Your task to perform on an android device: Go to privacy settings Image 0: 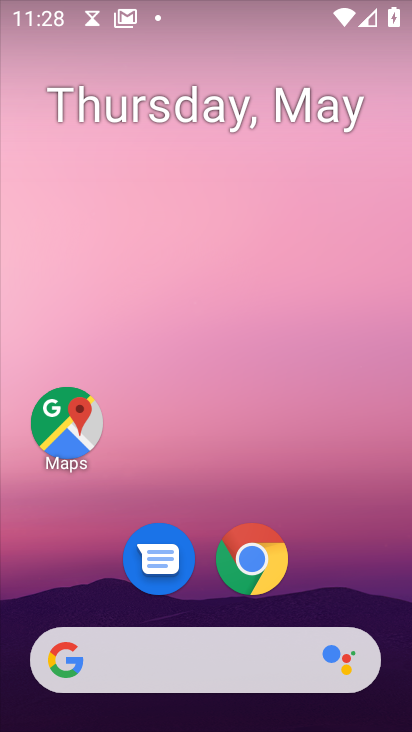
Step 0: drag from (211, 724) to (198, 196)
Your task to perform on an android device: Go to privacy settings Image 1: 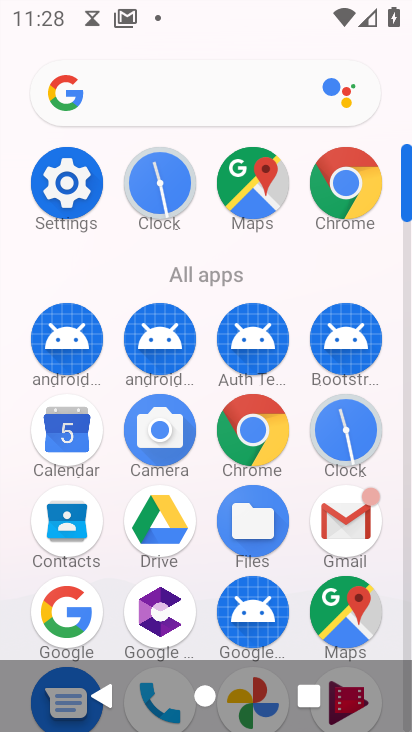
Step 1: click (74, 183)
Your task to perform on an android device: Go to privacy settings Image 2: 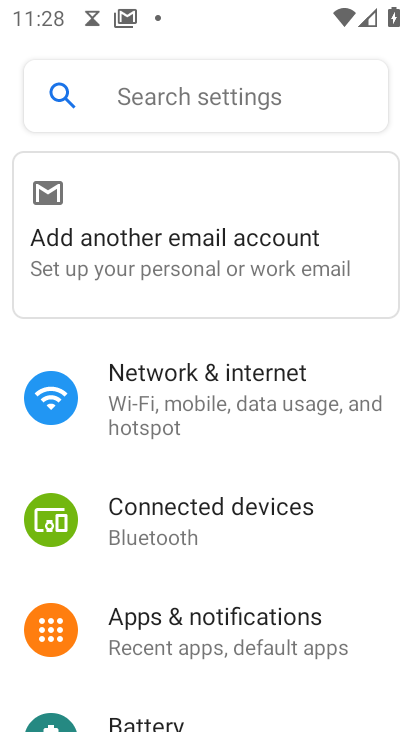
Step 2: drag from (178, 696) to (174, 291)
Your task to perform on an android device: Go to privacy settings Image 3: 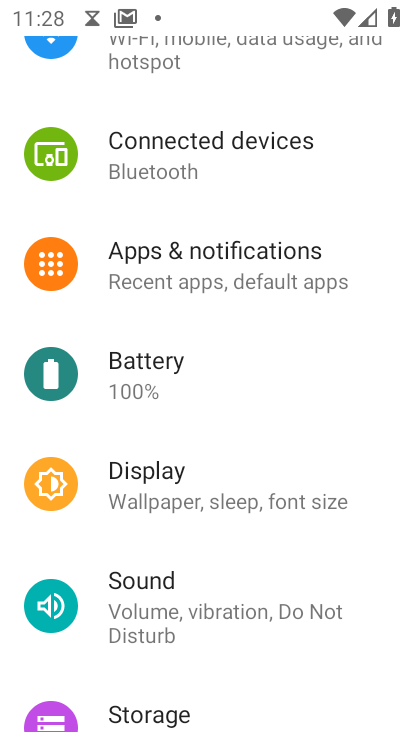
Step 3: drag from (186, 679) to (182, 281)
Your task to perform on an android device: Go to privacy settings Image 4: 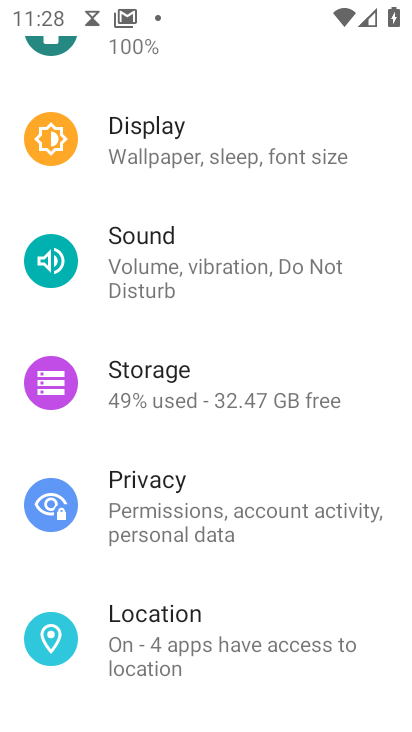
Step 4: click (150, 517)
Your task to perform on an android device: Go to privacy settings Image 5: 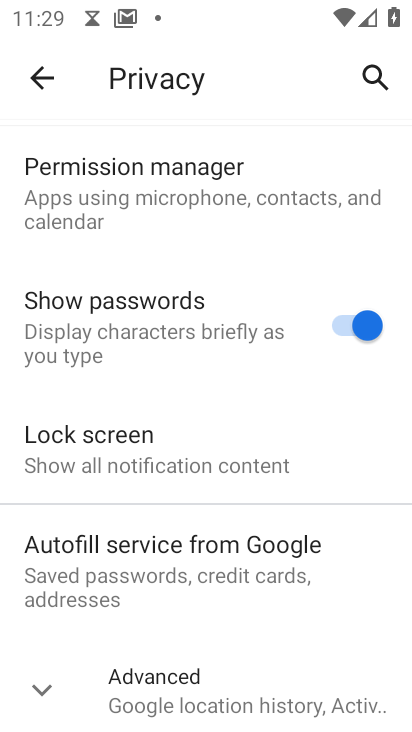
Step 5: task complete